Your task to perform on an android device: change alarm snooze length Image 0: 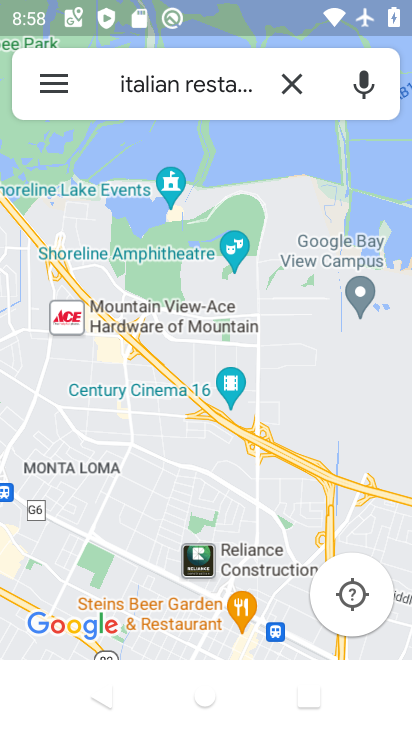
Step 0: press home button
Your task to perform on an android device: change alarm snooze length Image 1: 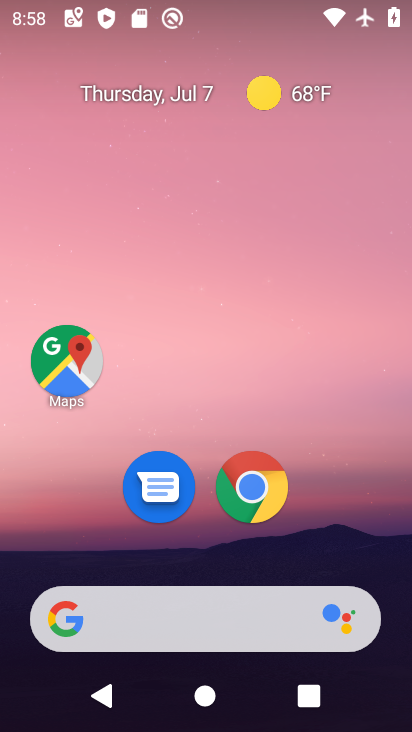
Step 1: drag from (213, 569) to (213, 68)
Your task to perform on an android device: change alarm snooze length Image 2: 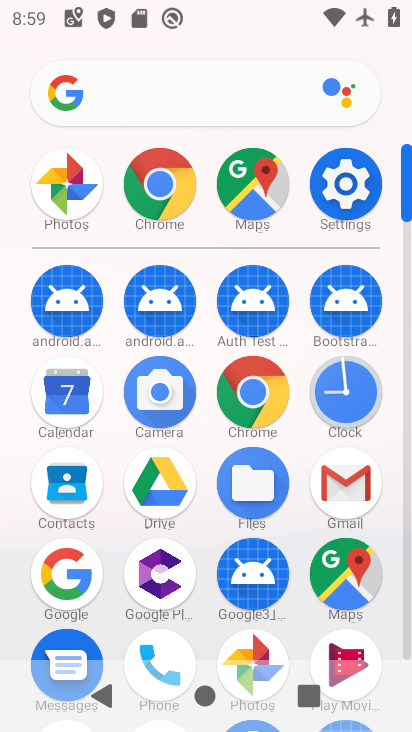
Step 2: click (343, 394)
Your task to perform on an android device: change alarm snooze length Image 3: 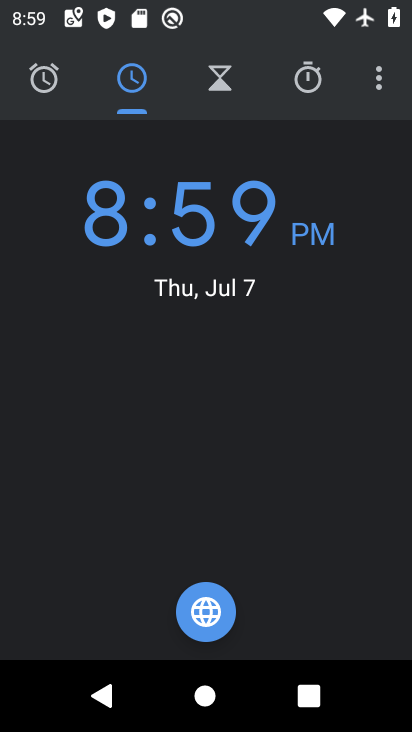
Step 3: click (378, 78)
Your task to perform on an android device: change alarm snooze length Image 4: 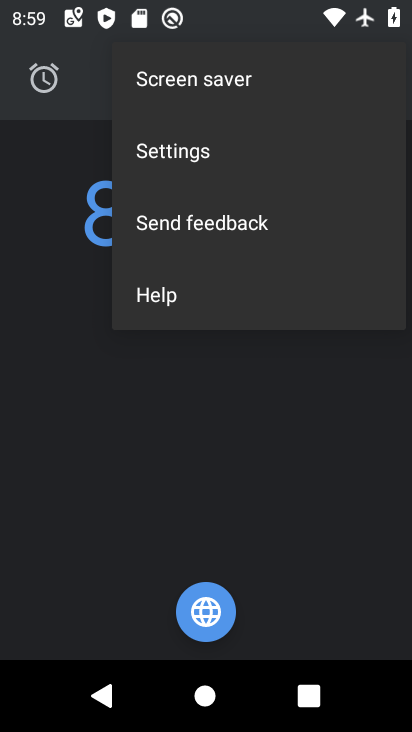
Step 4: click (173, 157)
Your task to perform on an android device: change alarm snooze length Image 5: 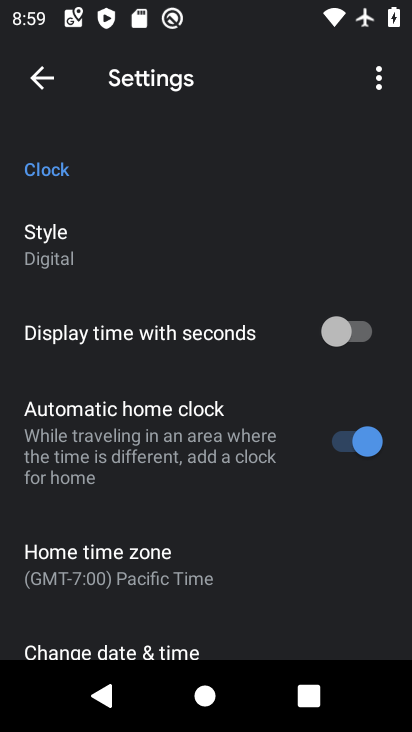
Step 5: drag from (226, 624) to (147, 165)
Your task to perform on an android device: change alarm snooze length Image 6: 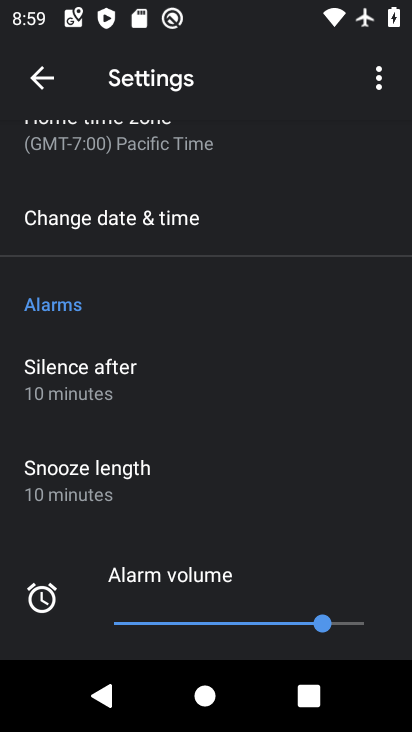
Step 6: drag from (185, 489) to (186, 311)
Your task to perform on an android device: change alarm snooze length Image 7: 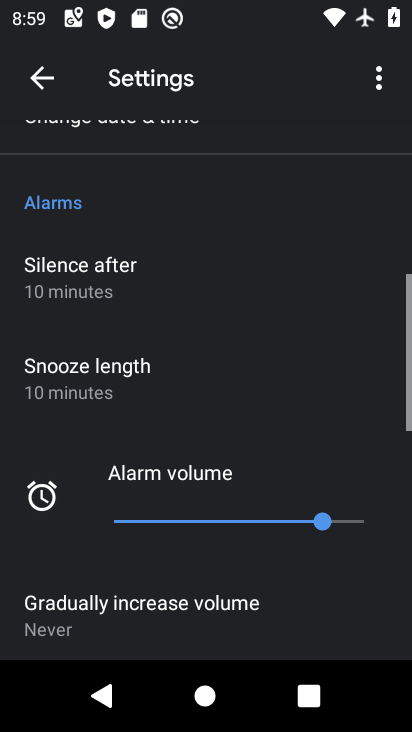
Step 7: click (125, 361)
Your task to perform on an android device: change alarm snooze length Image 8: 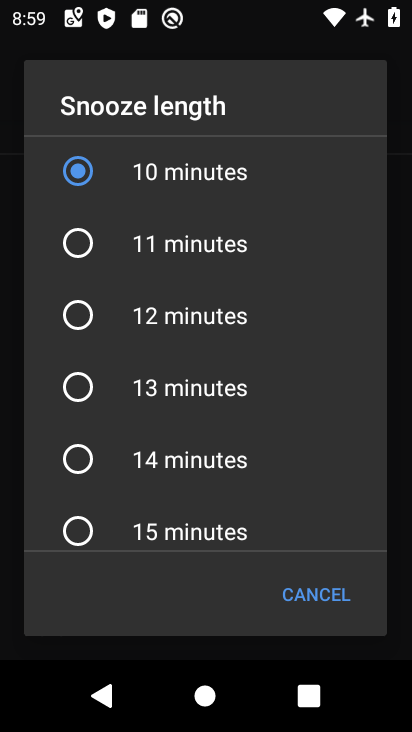
Step 8: click (179, 241)
Your task to perform on an android device: change alarm snooze length Image 9: 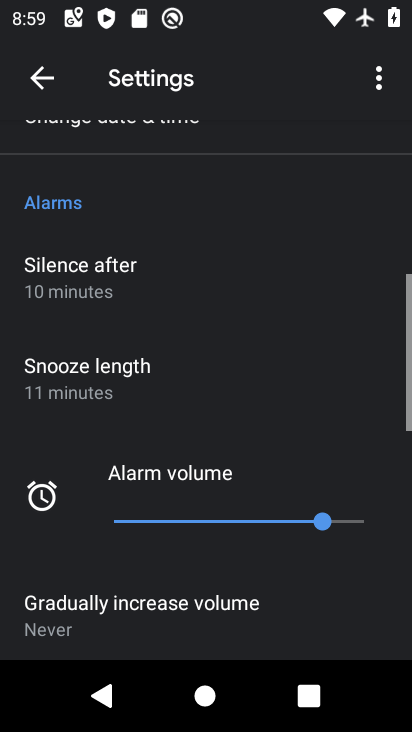
Step 9: task complete